Your task to perform on an android device: Open the web browser Image 0: 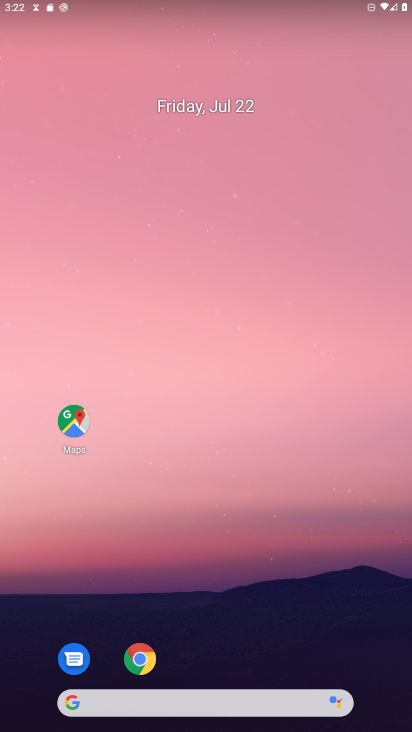
Step 0: drag from (311, 622) to (284, 5)
Your task to perform on an android device: Open the web browser Image 1: 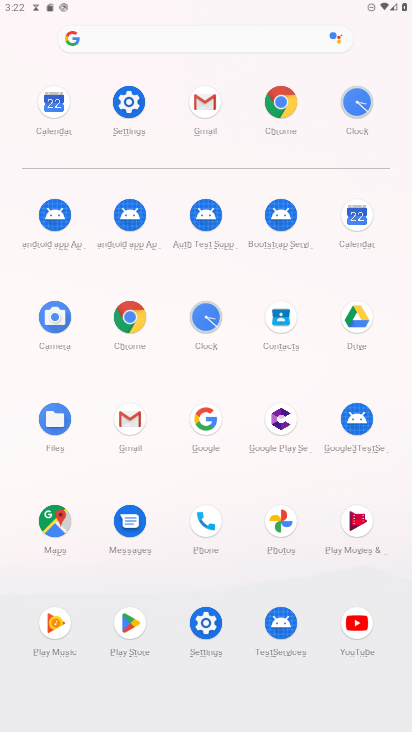
Step 1: click (283, 115)
Your task to perform on an android device: Open the web browser Image 2: 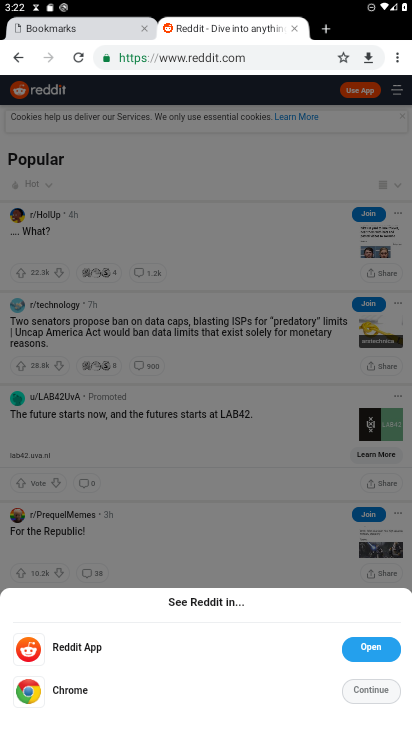
Step 2: task complete